Your task to perform on an android device: Is it going to rain this weekend? Image 0: 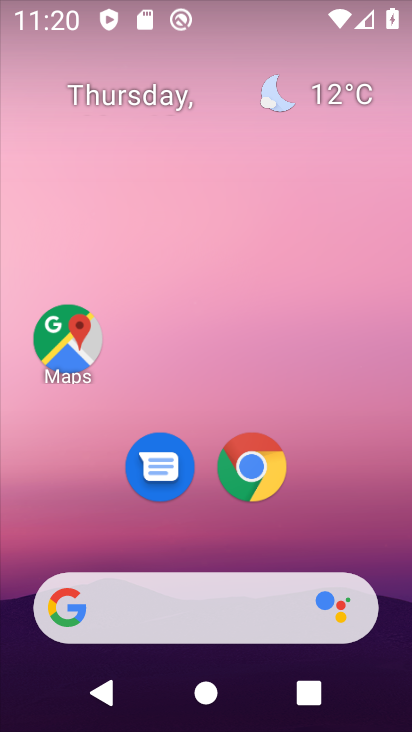
Step 0: drag from (315, 386) to (46, 248)
Your task to perform on an android device: Is it going to rain this weekend? Image 1: 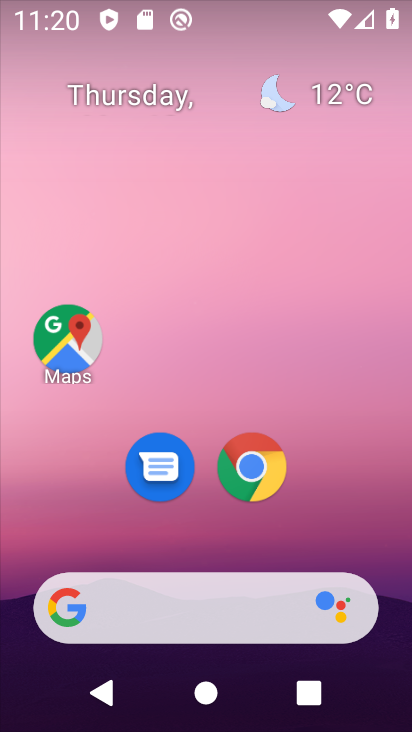
Step 1: drag from (394, 494) to (408, 390)
Your task to perform on an android device: Is it going to rain this weekend? Image 2: 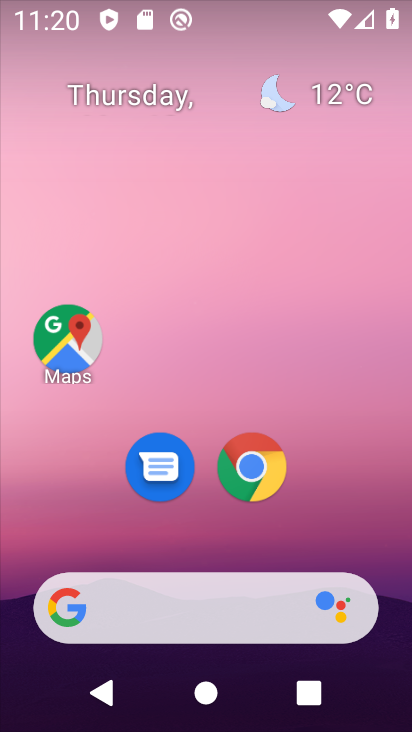
Step 2: click (350, 69)
Your task to perform on an android device: Is it going to rain this weekend? Image 3: 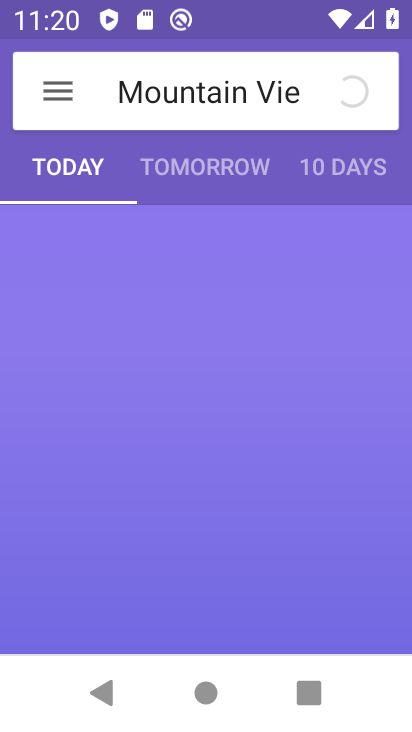
Step 3: click (350, 69)
Your task to perform on an android device: Is it going to rain this weekend? Image 4: 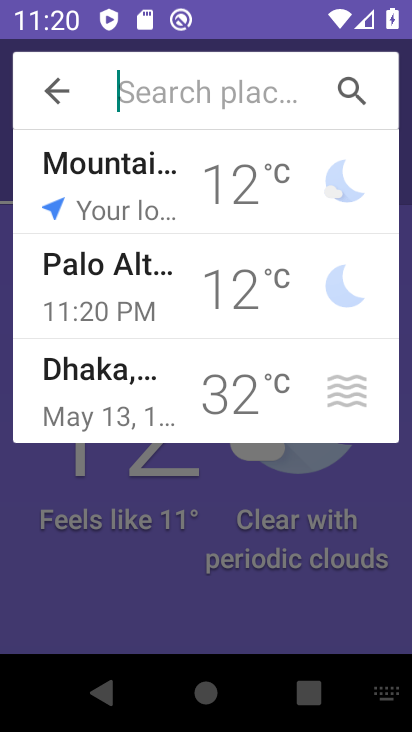
Step 4: click (352, 69)
Your task to perform on an android device: Is it going to rain this weekend? Image 5: 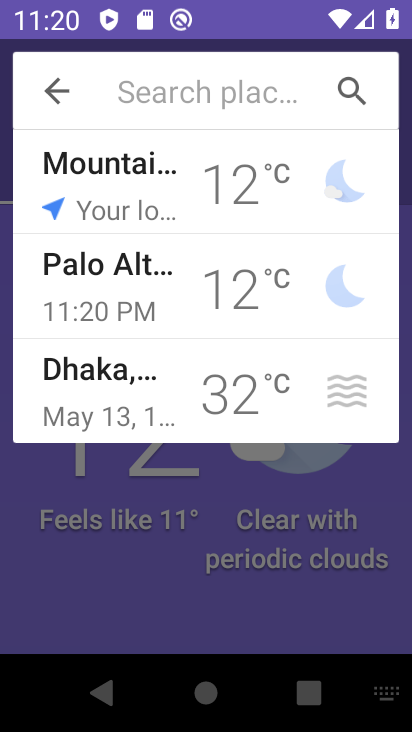
Step 5: task complete